Your task to perform on an android device: delete browsing data in the chrome app Image 0: 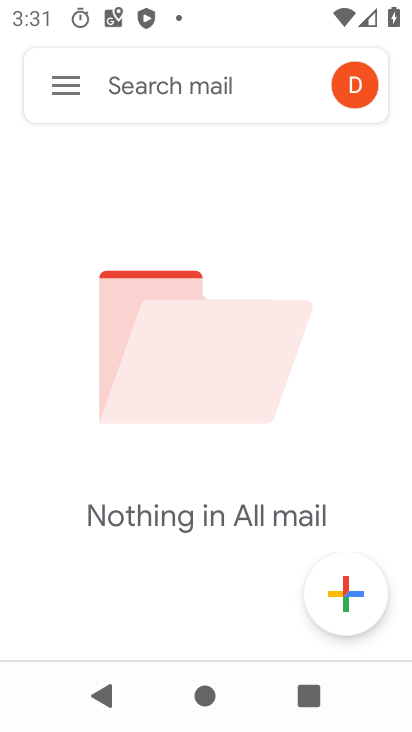
Step 0: press home button
Your task to perform on an android device: delete browsing data in the chrome app Image 1: 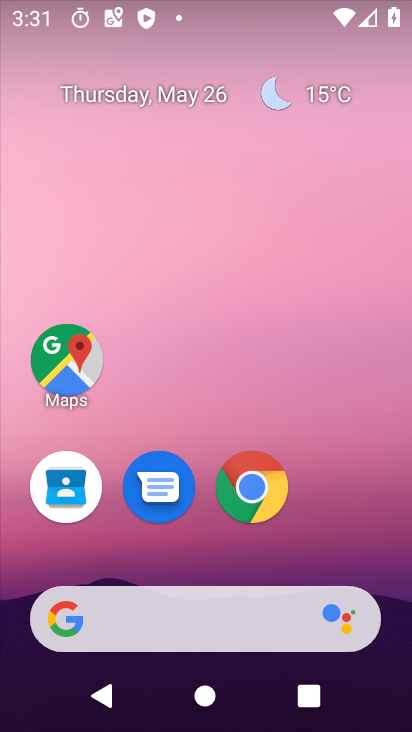
Step 1: click (241, 489)
Your task to perform on an android device: delete browsing data in the chrome app Image 2: 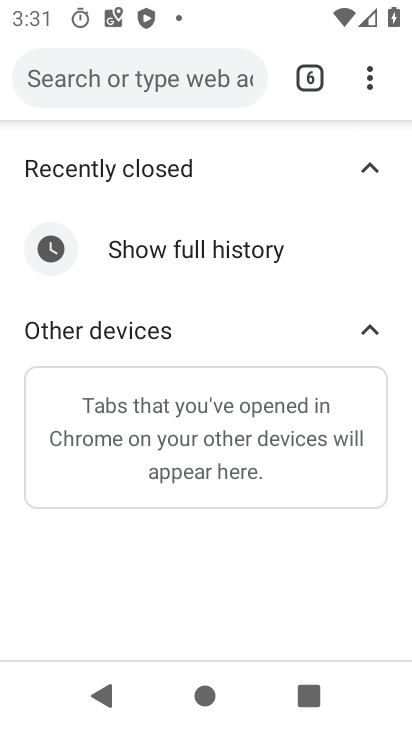
Step 2: drag from (363, 78) to (91, 425)
Your task to perform on an android device: delete browsing data in the chrome app Image 3: 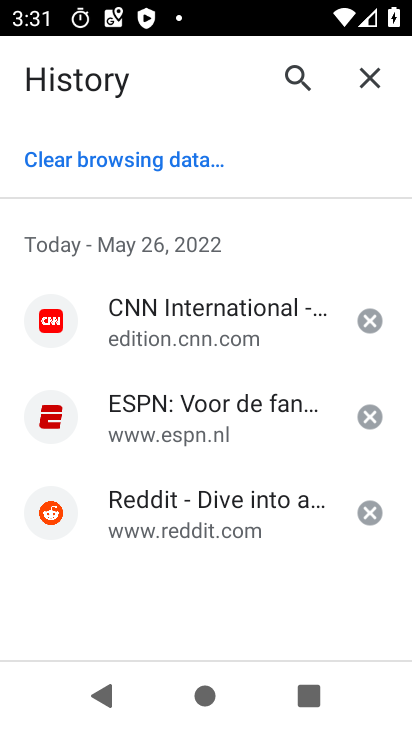
Step 3: click (130, 158)
Your task to perform on an android device: delete browsing data in the chrome app Image 4: 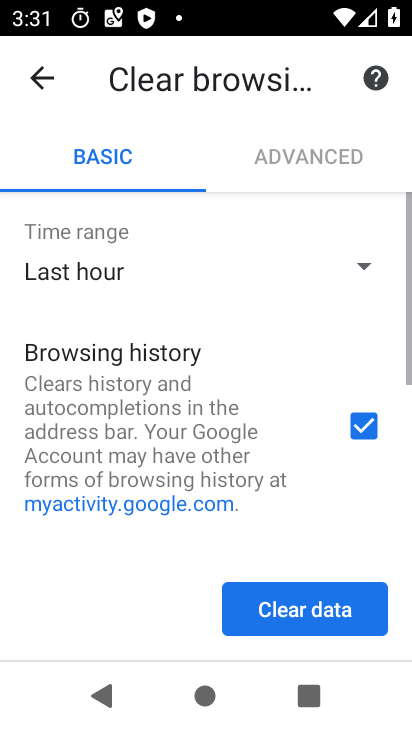
Step 4: drag from (279, 527) to (284, 321)
Your task to perform on an android device: delete browsing data in the chrome app Image 5: 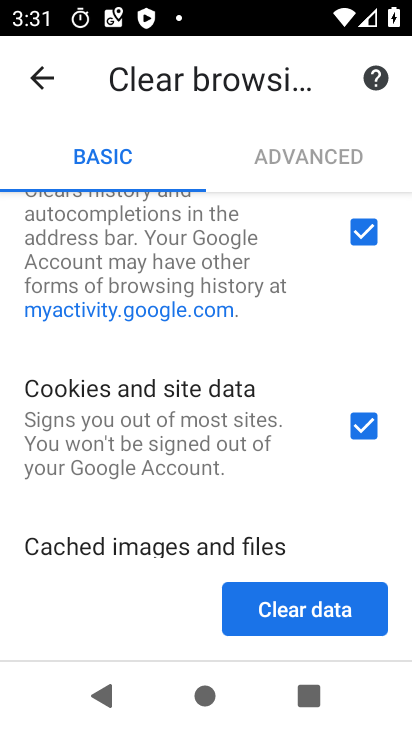
Step 5: click (266, 609)
Your task to perform on an android device: delete browsing data in the chrome app Image 6: 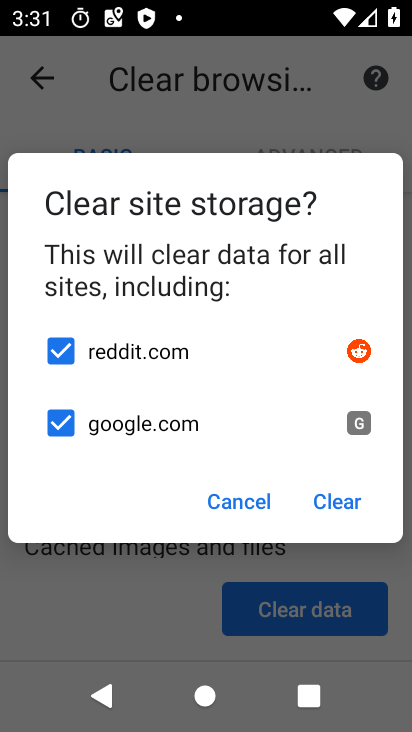
Step 6: click (339, 498)
Your task to perform on an android device: delete browsing data in the chrome app Image 7: 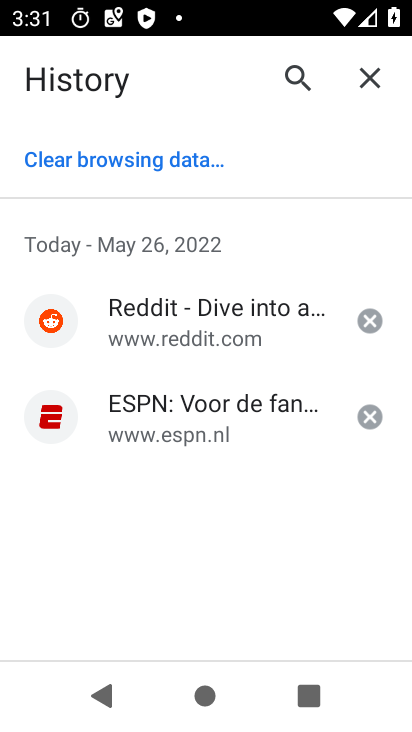
Step 7: task complete